Your task to perform on an android device: What is the news today? Image 0: 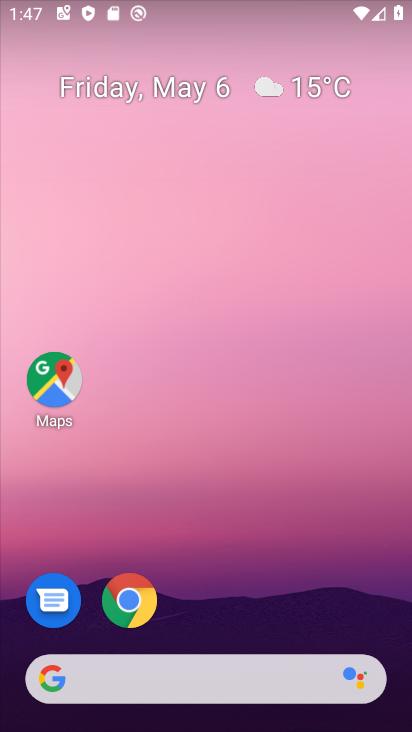
Step 0: drag from (321, 566) to (311, 2)
Your task to perform on an android device: What is the news today? Image 1: 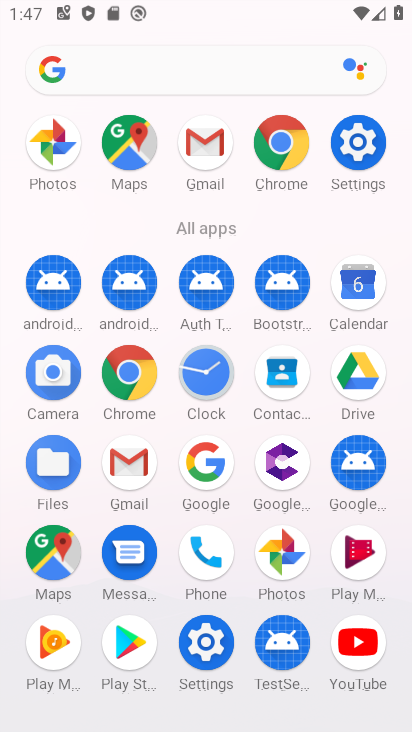
Step 1: drag from (5, 595) to (9, 355)
Your task to perform on an android device: What is the news today? Image 2: 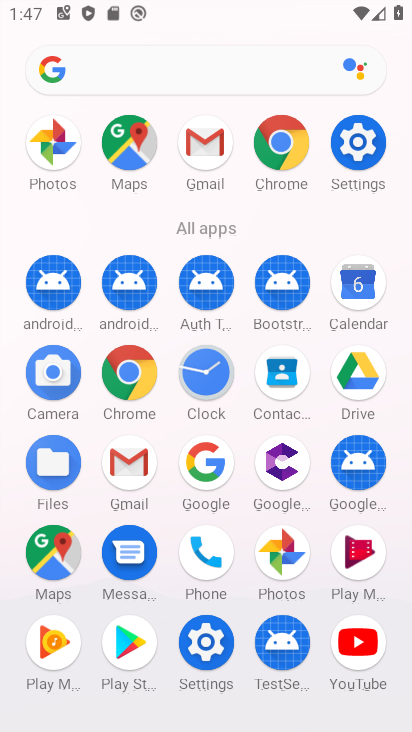
Step 2: click (122, 368)
Your task to perform on an android device: What is the news today? Image 3: 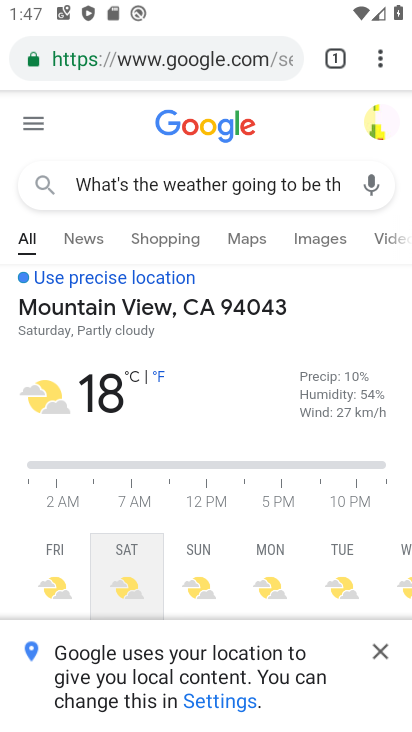
Step 3: click (239, 50)
Your task to perform on an android device: What is the news today? Image 4: 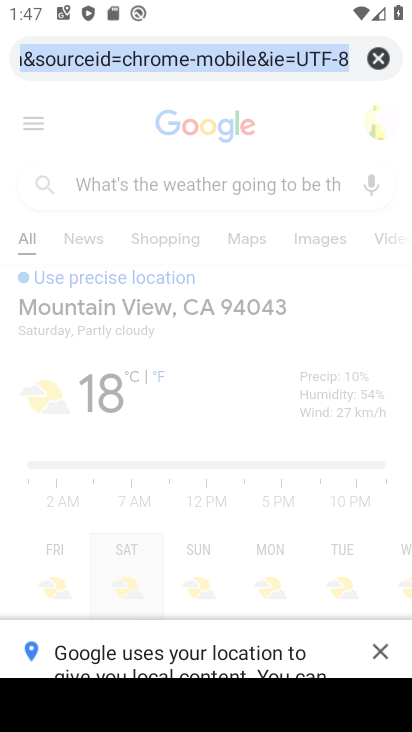
Step 4: click (363, 56)
Your task to perform on an android device: What is the news today? Image 5: 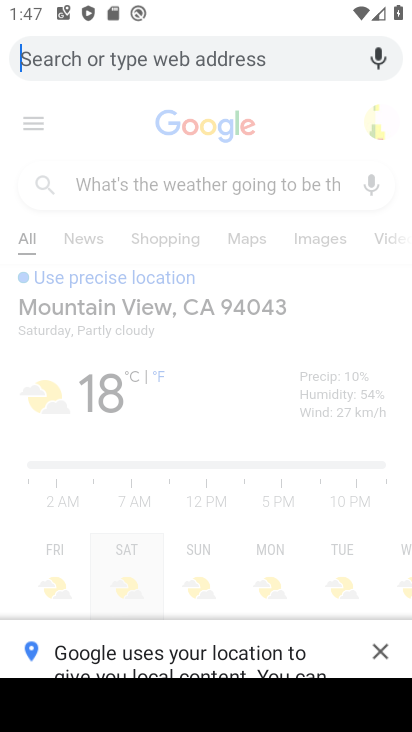
Step 5: type "What is the news today?"
Your task to perform on an android device: What is the news today? Image 6: 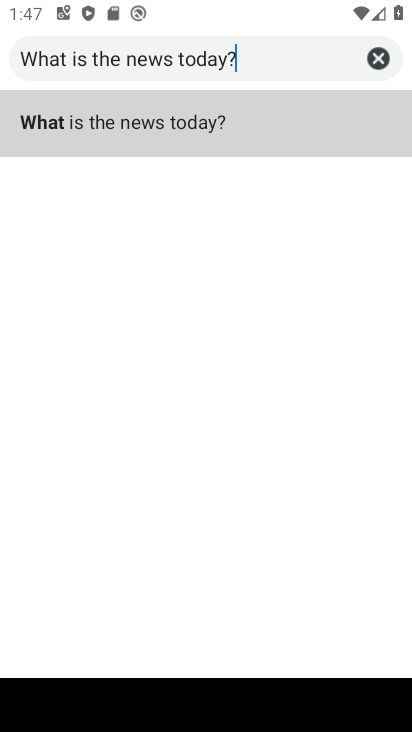
Step 6: click (183, 144)
Your task to perform on an android device: What is the news today? Image 7: 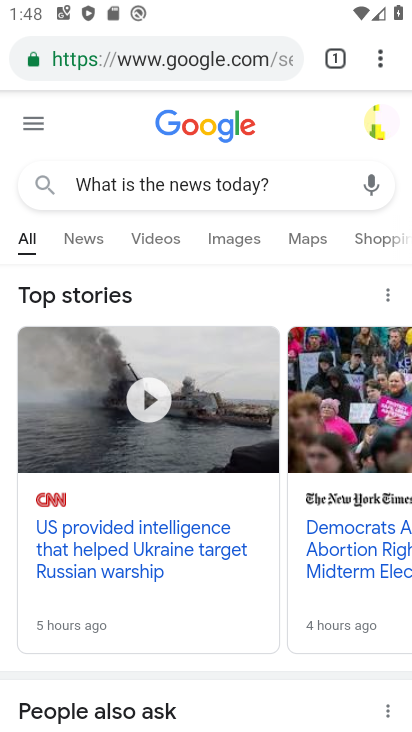
Step 7: task complete